Your task to perform on an android device: What is the recent news? Image 0: 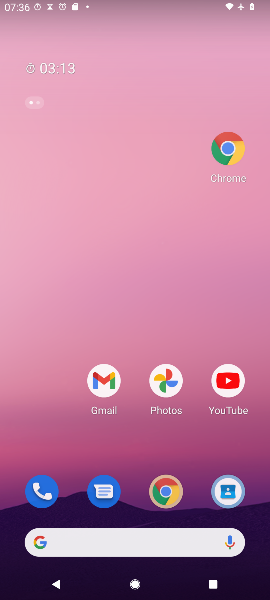
Step 0: press home button
Your task to perform on an android device: What is the recent news? Image 1: 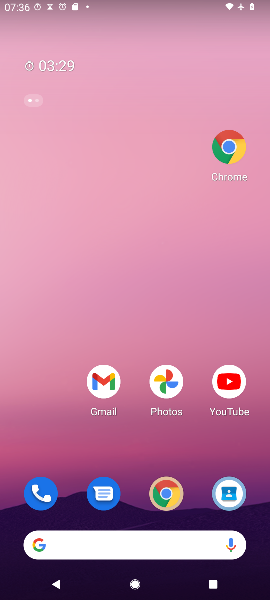
Step 1: click (38, 550)
Your task to perform on an android device: What is the recent news? Image 2: 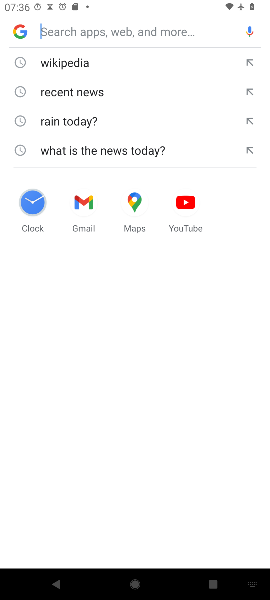
Step 2: click (72, 99)
Your task to perform on an android device: What is the recent news? Image 3: 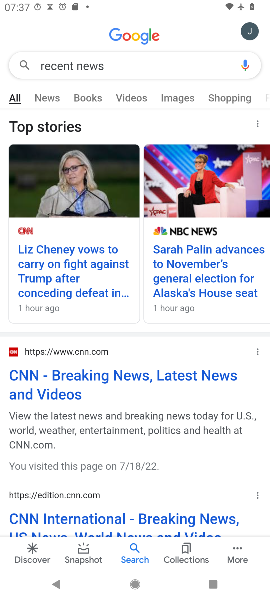
Step 3: task complete